Your task to perform on an android device: delete location history Image 0: 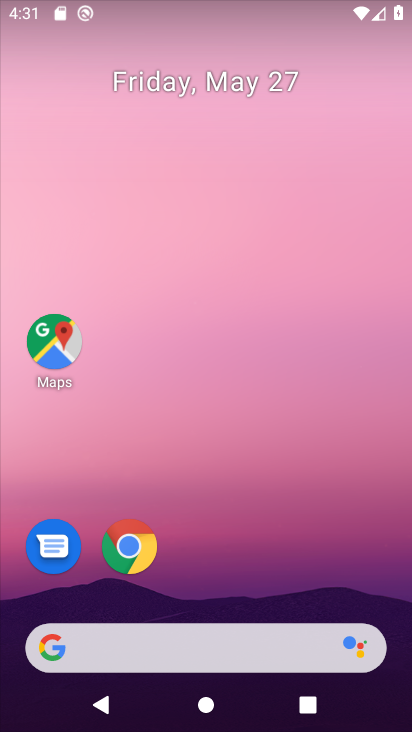
Step 0: drag from (247, 563) to (150, 47)
Your task to perform on an android device: delete location history Image 1: 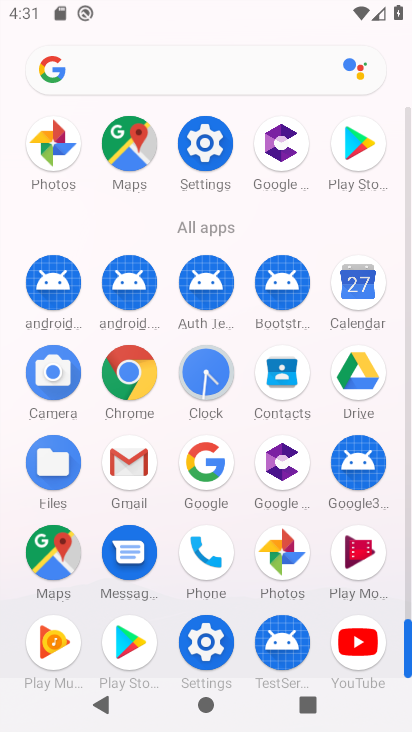
Step 1: drag from (16, 597) to (15, 301)
Your task to perform on an android device: delete location history Image 2: 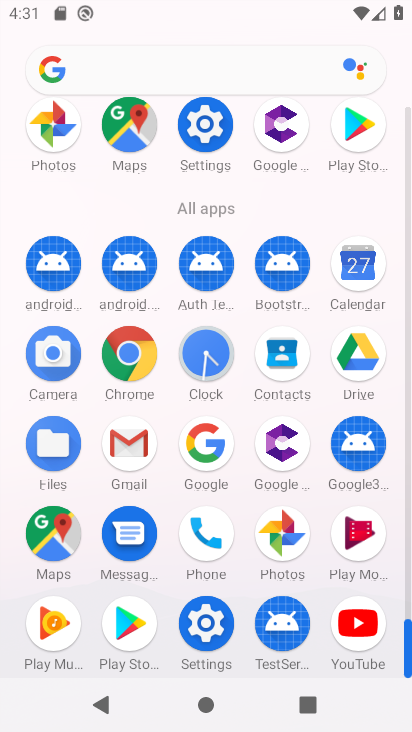
Step 2: click (202, 622)
Your task to perform on an android device: delete location history Image 3: 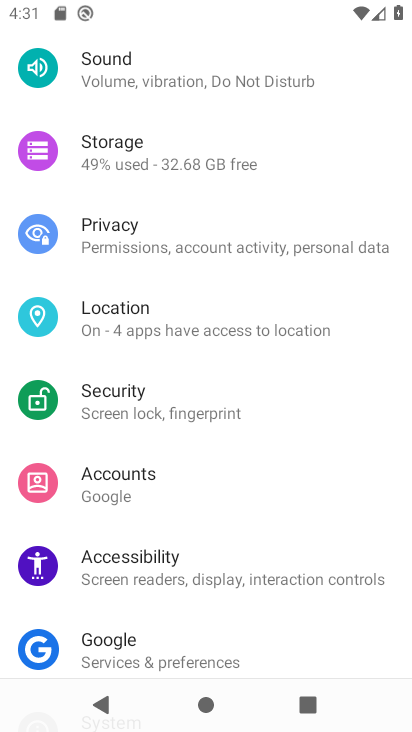
Step 3: drag from (245, 588) to (250, 176)
Your task to perform on an android device: delete location history Image 4: 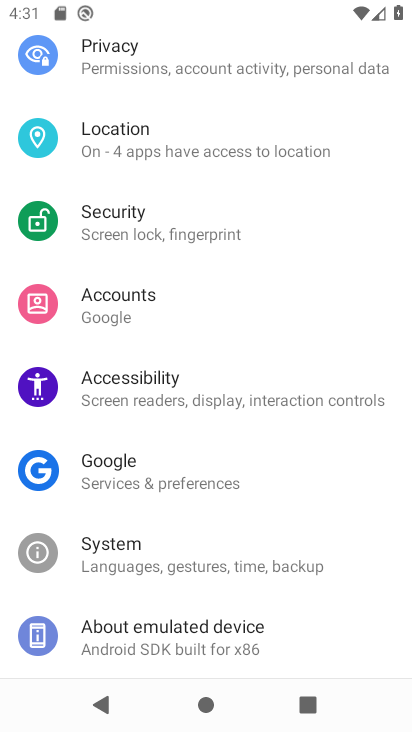
Step 4: click (170, 129)
Your task to perform on an android device: delete location history Image 5: 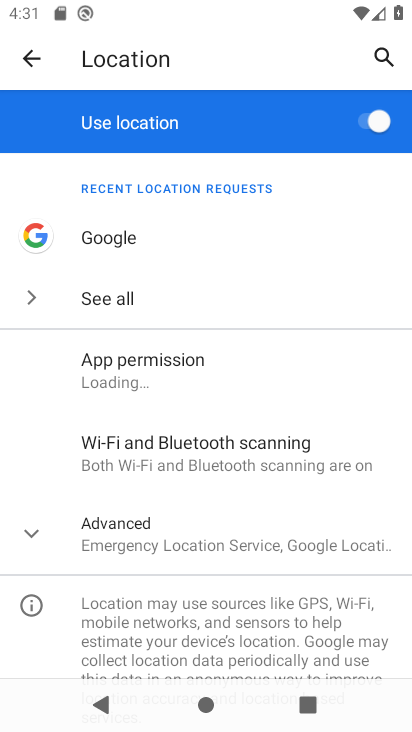
Step 5: click (33, 530)
Your task to perform on an android device: delete location history Image 6: 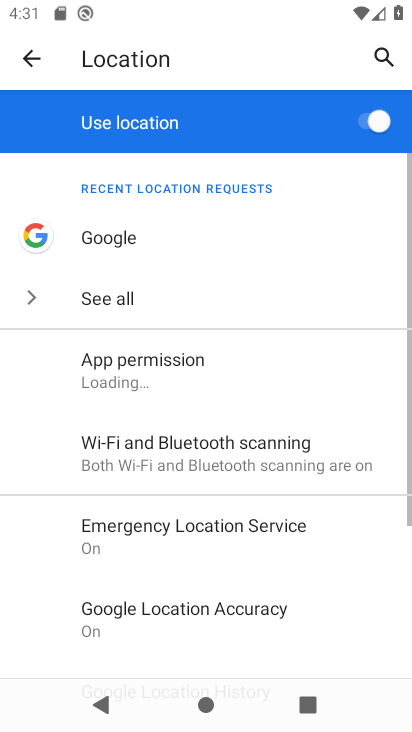
Step 6: drag from (296, 613) to (312, 224)
Your task to perform on an android device: delete location history Image 7: 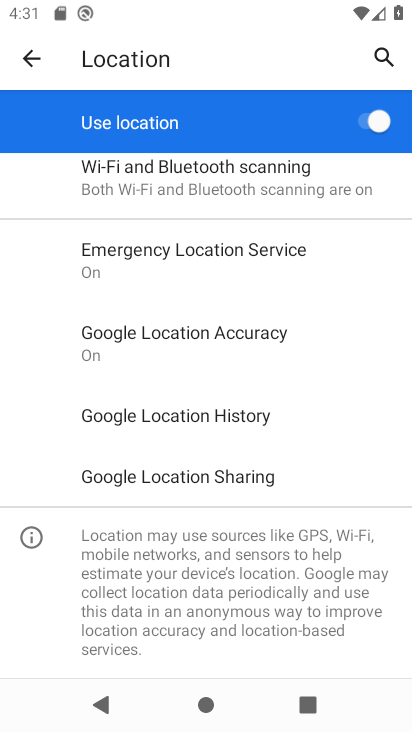
Step 7: click (226, 414)
Your task to perform on an android device: delete location history Image 8: 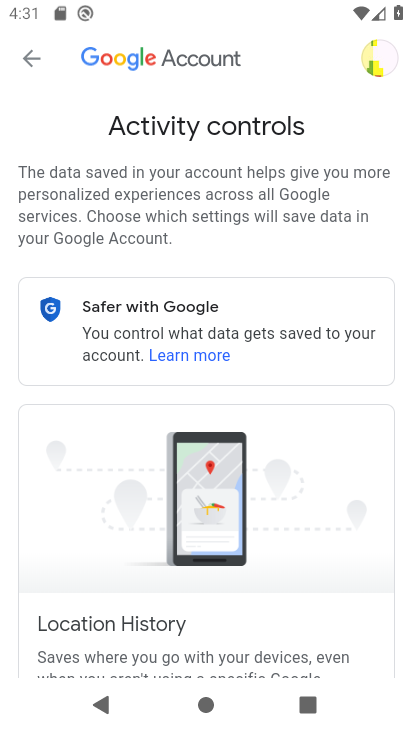
Step 8: drag from (311, 505) to (266, 136)
Your task to perform on an android device: delete location history Image 9: 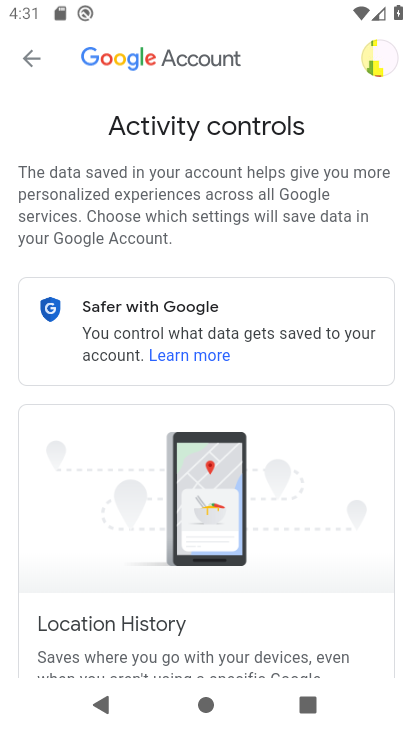
Step 9: drag from (302, 542) to (283, 134)
Your task to perform on an android device: delete location history Image 10: 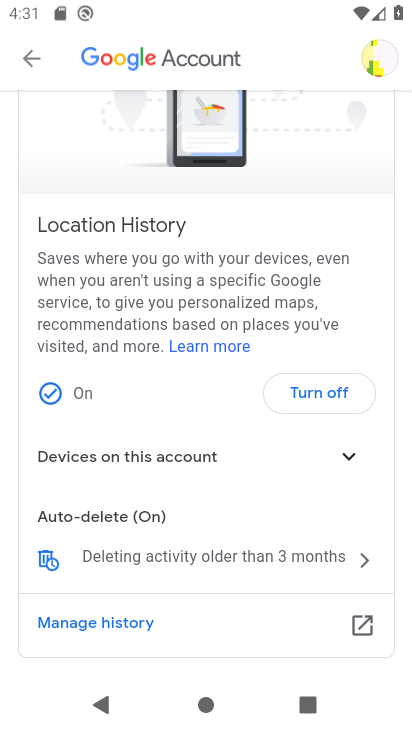
Step 10: click (101, 551)
Your task to perform on an android device: delete location history Image 11: 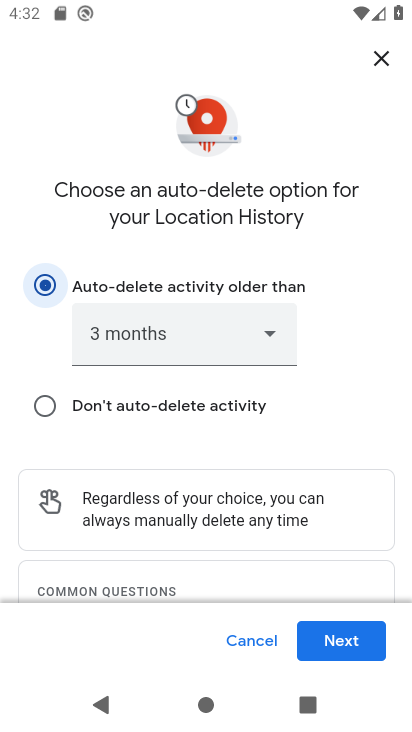
Step 11: drag from (380, 456) to (375, 93)
Your task to perform on an android device: delete location history Image 12: 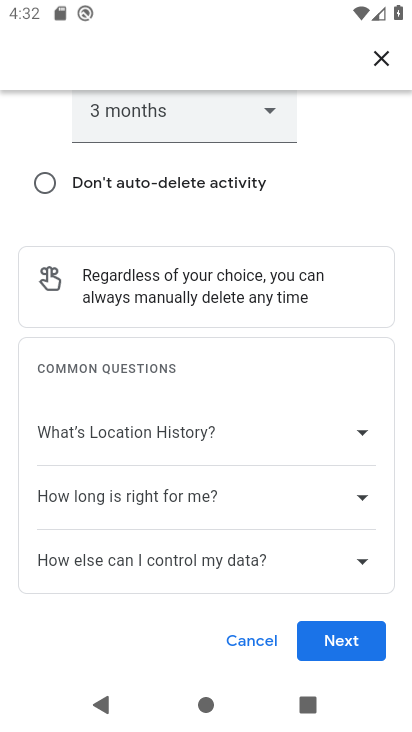
Step 12: click (355, 634)
Your task to perform on an android device: delete location history Image 13: 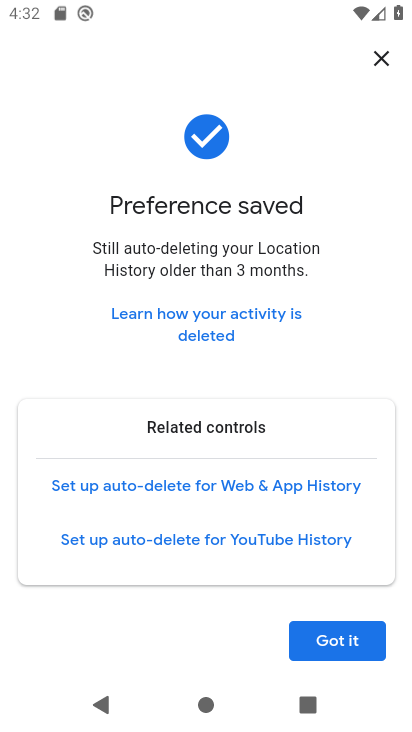
Step 13: task complete